Your task to perform on an android device: clear history in the chrome app Image 0: 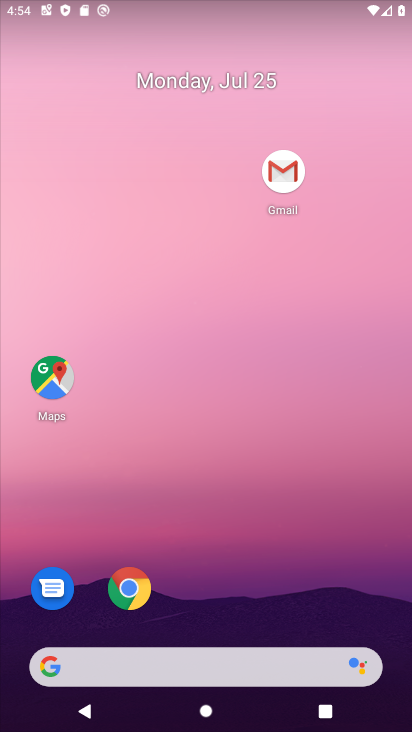
Step 0: drag from (264, 547) to (249, 105)
Your task to perform on an android device: clear history in the chrome app Image 1: 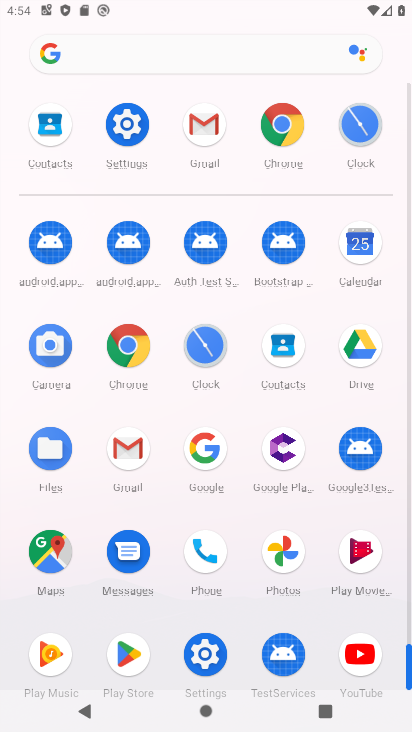
Step 1: click (278, 129)
Your task to perform on an android device: clear history in the chrome app Image 2: 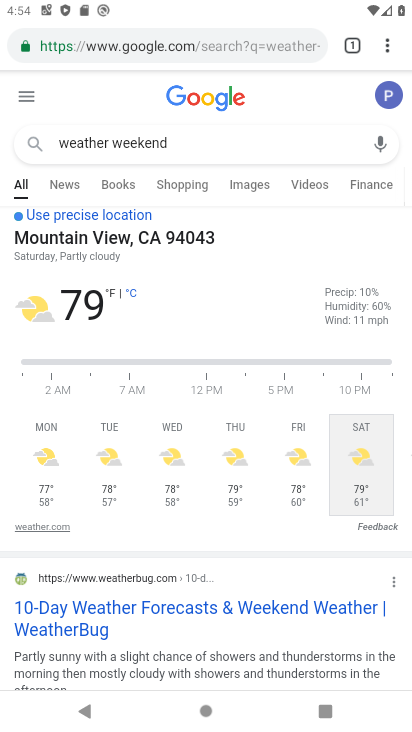
Step 2: drag from (389, 39) to (250, 266)
Your task to perform on an android device: clear history in the chrome app Image 3: 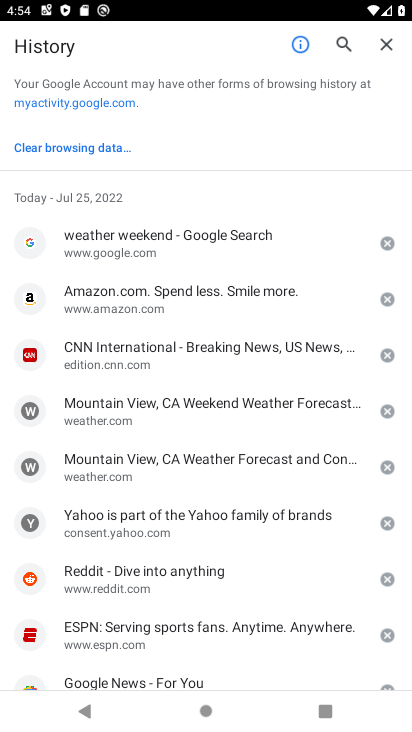
Step 3: click (67, 149)
Your task to perform on an android device: clear history in the chrome app Image 4: 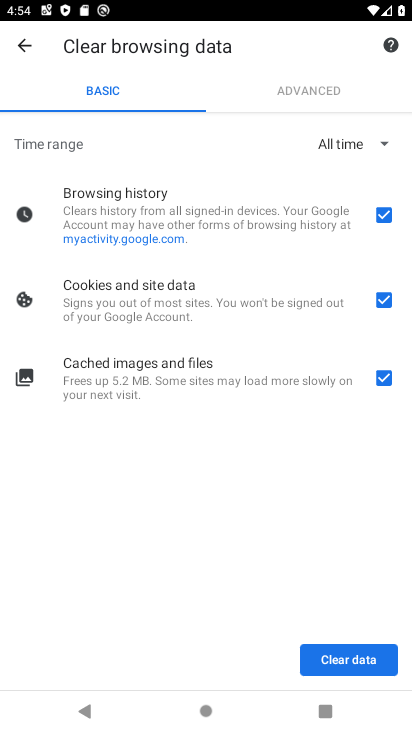
Step 4: click (375, 661)
Your task to perform on an android device: clear history in the chrome app Image 5: 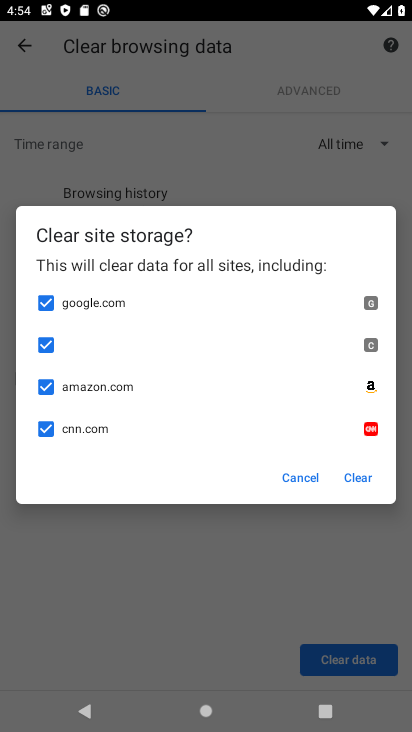
Step 5: click (371, 476)
Your task to perform on an android device: clear history in the chrome app Image 6: 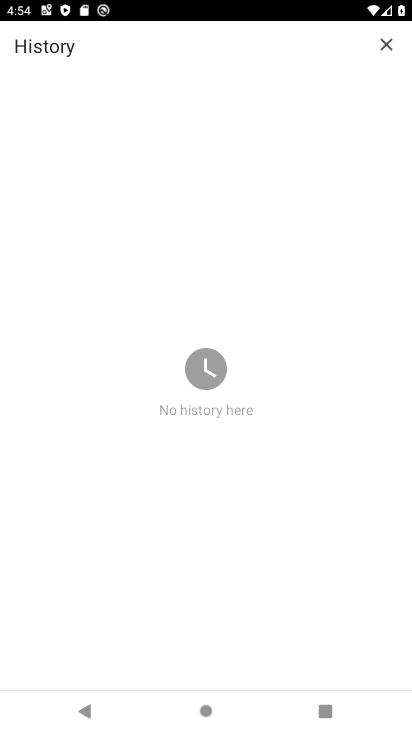
Step 6: task complete